Your task to perform on an android device: change the clock display to show seconds Image 0: 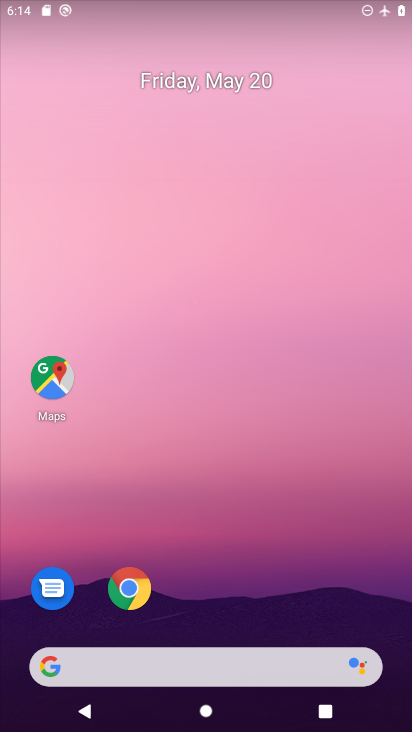
Step 0: drag from (257, 604) to (206, 206)
Your task to perform on an android device: change the clock display to show seconds Image 1: 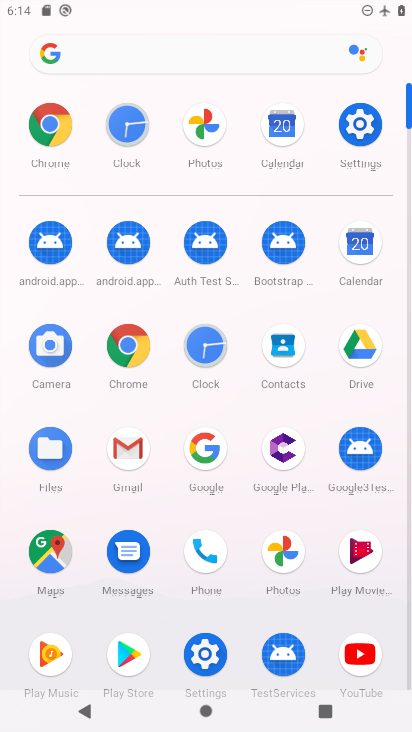
Step 1: click (198, 366)
Your task to perform on an android device: change the clock display to show seconds Image 2: 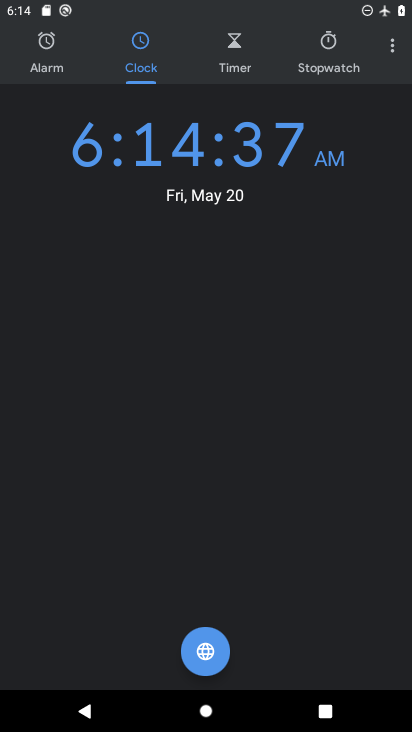
Step 2: click (384, 49)
Your task to perform on an android device: change the clock display to show seconds Image 3: 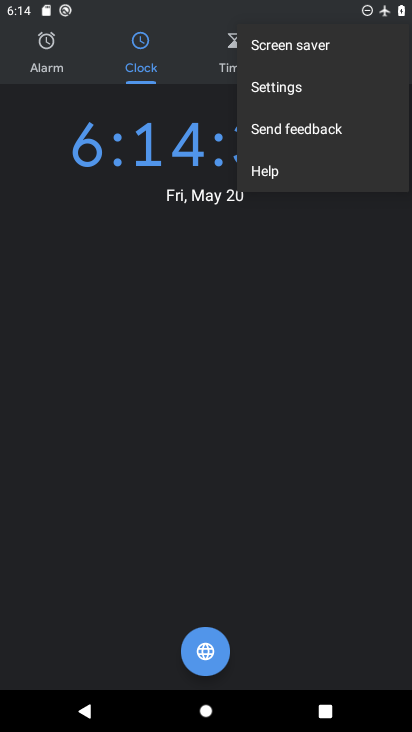
Step 3: click (284, 77)
Your task to perform on an android device: change the clock display to show seconds Image 4: 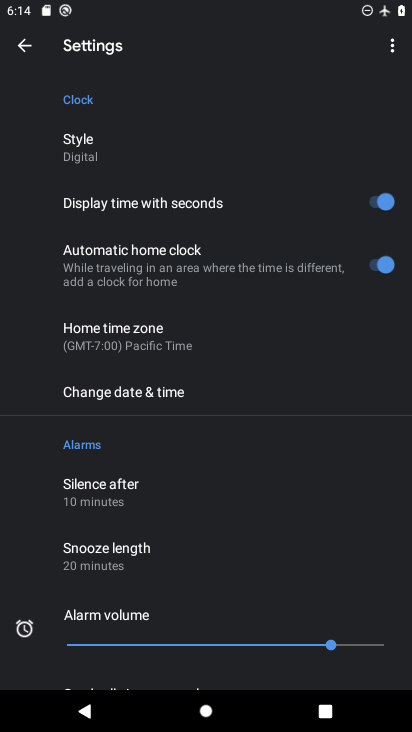
Step 4: task complete